Your task to perform on an android device: Is it going to rain this weekend? Image 0: 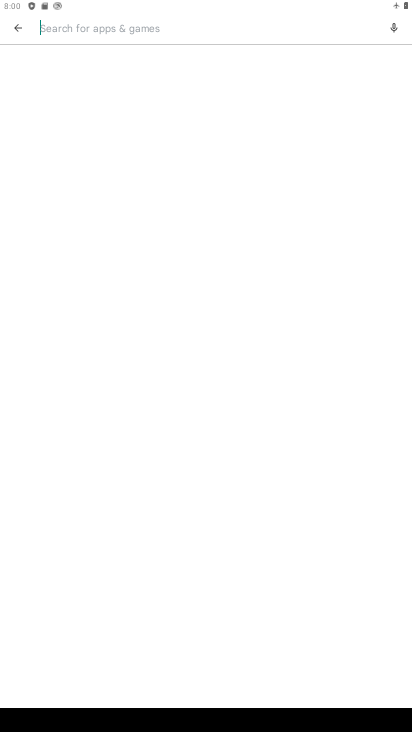
Step 0: press home button
Your task to perform on an android device: Is it going to rain this weekend? Image 1: 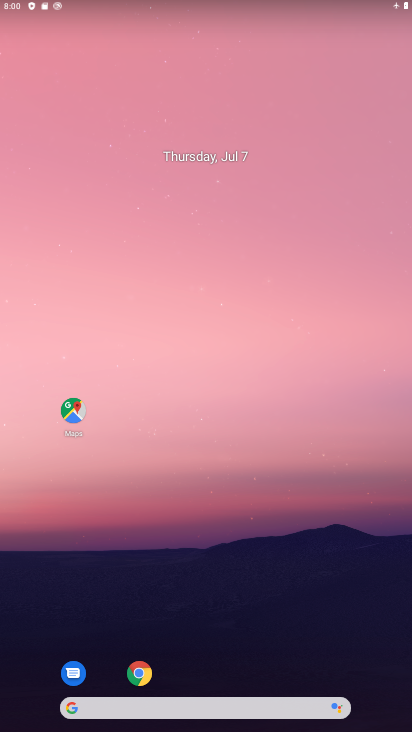
Step 1: drag from (208, 688) to (263, 4)
Your task to perform on an android device: Is it going to rain this weekend? Image 2: 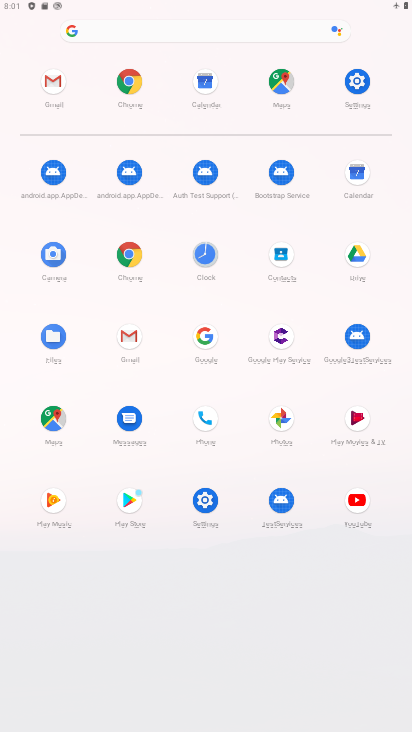
Step 2: click (353, 175)
Your task to perform on an android device: Is it going to rain this weekend? Image 3: 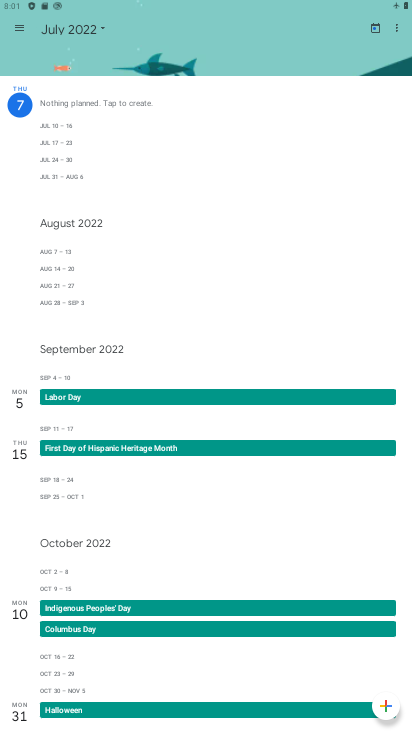
Step 3: press home button
Your task to perform on an android device: Is it going to rain this weekend? Image 4: 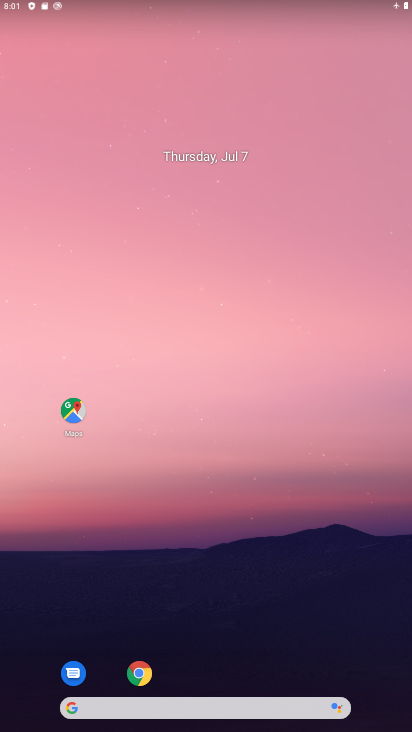
Step 4: drag from (216, 690) to (366, 16)
Your task to perform on an android device: Is it going to rain this weekend? Image 5: 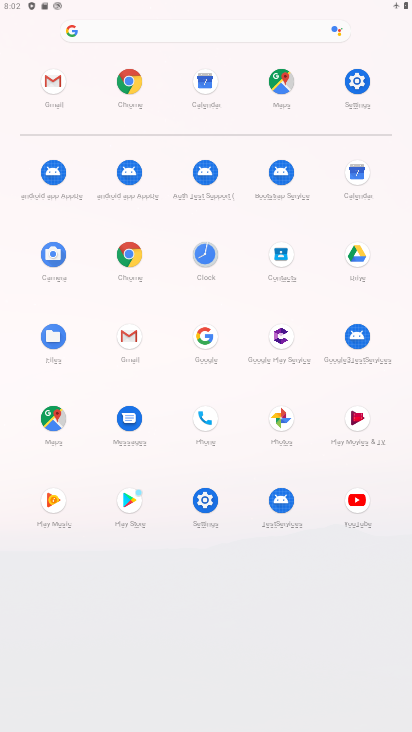
Step 5: click (207, 342)
Your task to perform on an android device: Is it going to rain this weekend? Image 6: 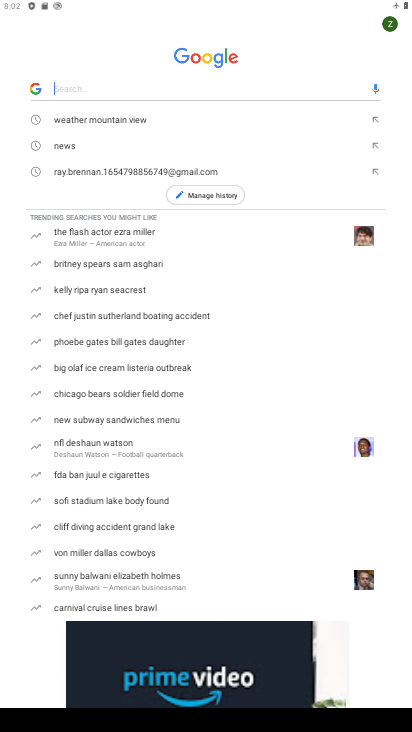
Step 6: click (81, 115)
Your task to perform on an android device: Is it going to rain this weekend? Image 7: 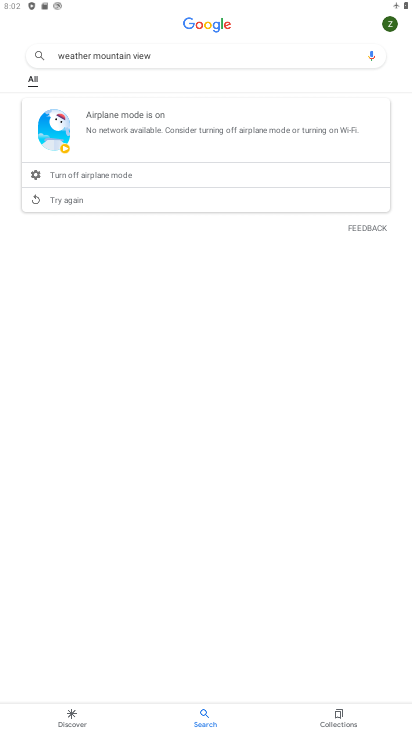
Step 7: task complete